Your task to perform on an android device: Open Chrome and go to the settings page Image 0: 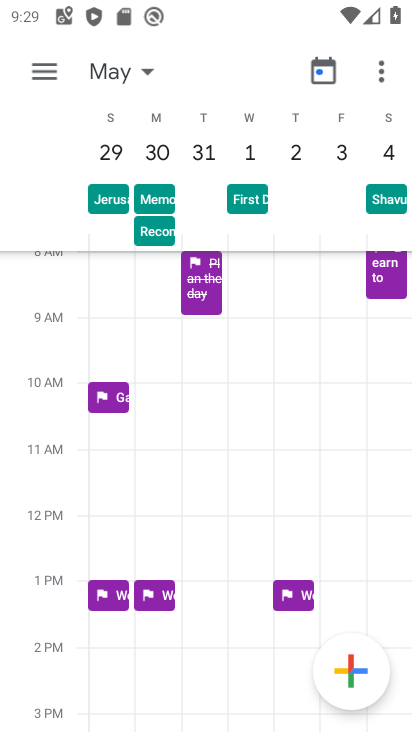
Step 0: press home button
Your task to perform on an android device: Open Chrome and go to the settings page Image 1: 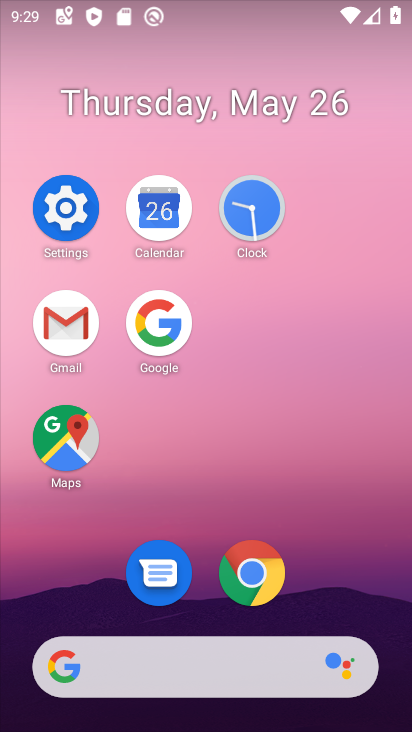
Step 1: click (239, 561)
Your task to perform on an android device: Open Chrome and go to the settings page Image 2: 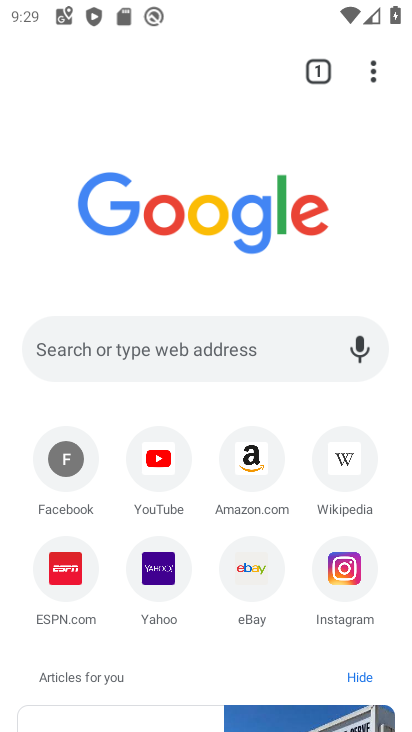
Step 2: click (398, 76)
Your task to perform on an android device: Open Chrome and go to the settings page Image 3: 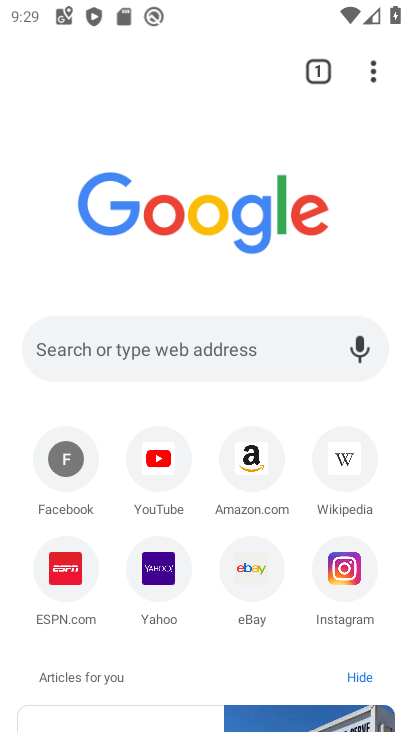
Step 3: click (367, 74)
Your task to perform on an android device: Open Chrome and go to the settings page Image 4: 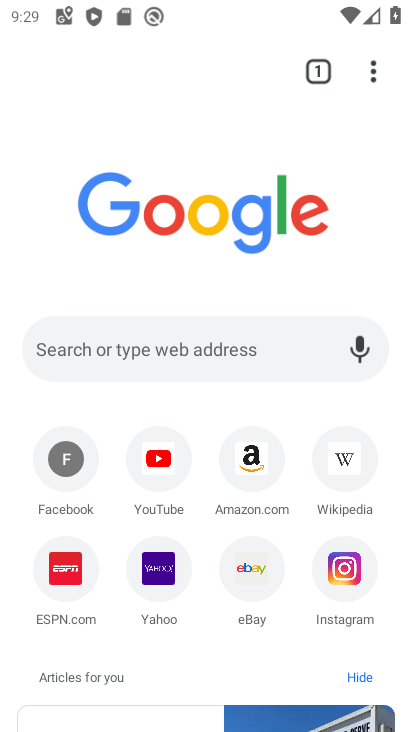
Step 4: click (381, 67)
Your task to perform on an android device: Open Chrome and go to the settings page Image 5: 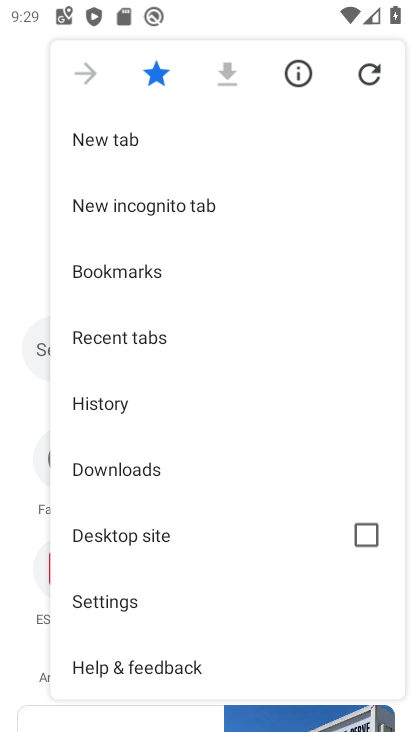
Step 5: click (164, 600)
Your task to perform on an android device: Open Chrome and go to the settings page Image 6: 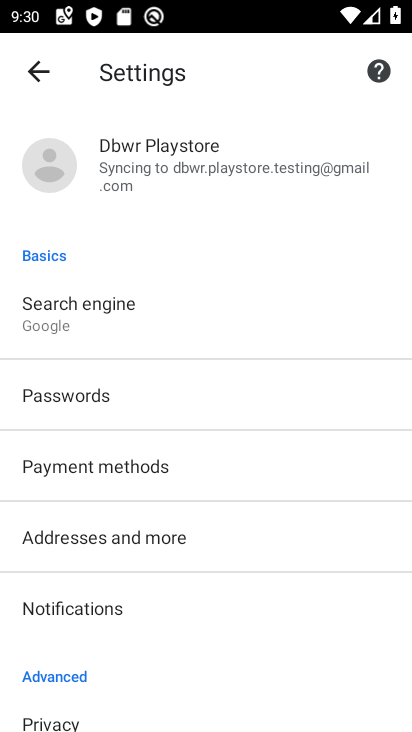
Step 6: task complete